Your task to perform on an android device: What is the news today? Image 0: 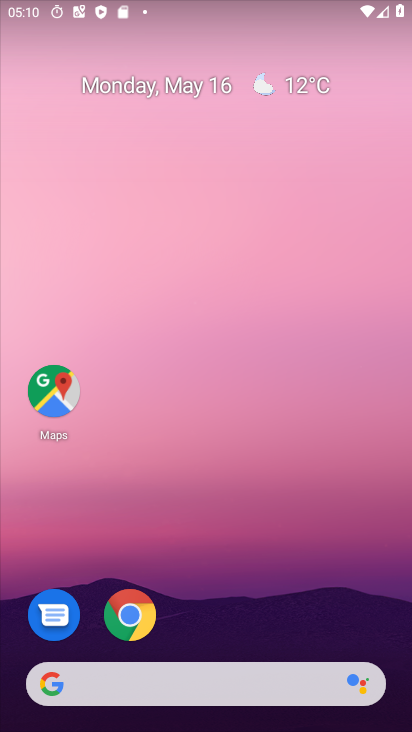
Step 0: drag from (341, 551) to (226, 36)
Your task to perform on an android device: What is the news today? Image 1: 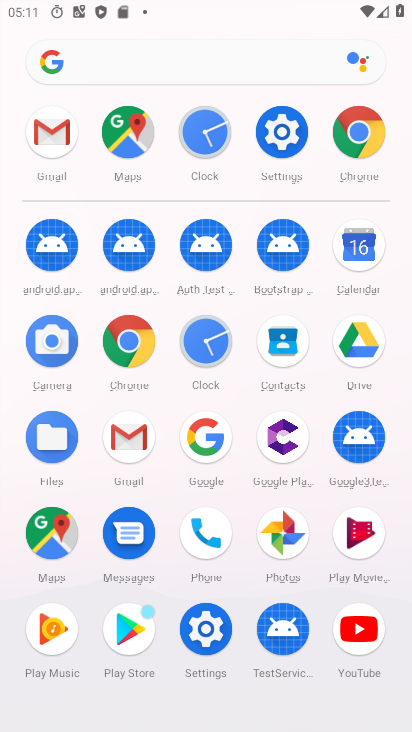
Step 1: press back button
Your task to perform on an android device: What is the news today? Image 2: 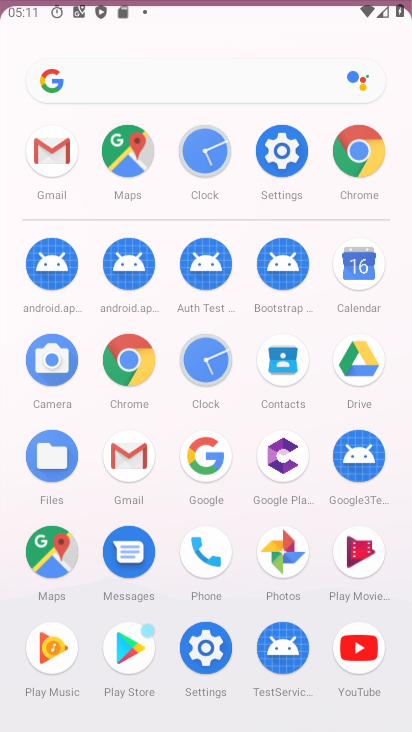
Step 2: press back button
Your task to perform on an android device: What is the news today? Image 3: 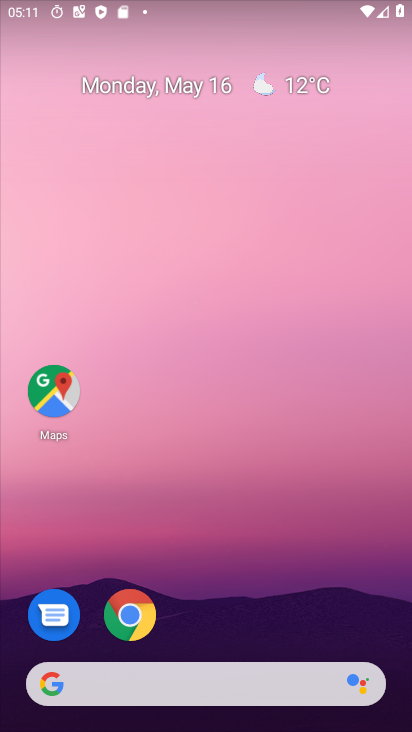
Step 3: drag from (6, 210) to (379, 406)
Your task to perform on an android device: What is the news today? Image 4: 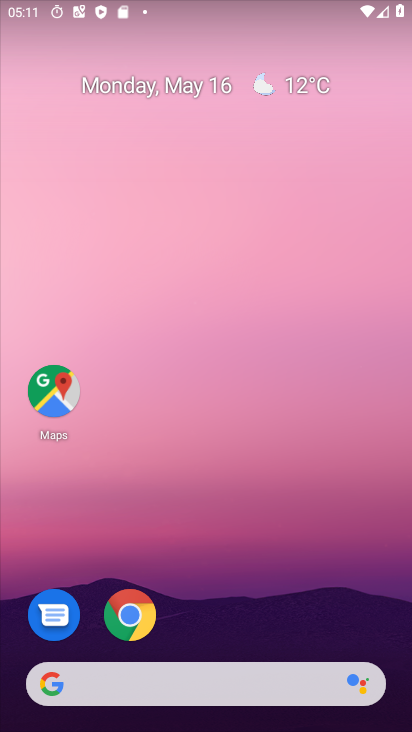
Step 4: drag from (16, 231) to (389, 439)
Your task to perform on an android device: What is the news today? Image 5: 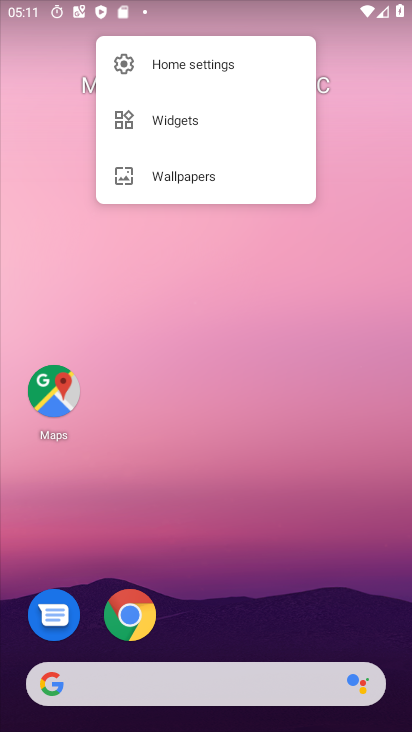
Step 5: drag from (27, 236) to (355, 398)
Your task to perform on an android device: What is the news today? Image 6: 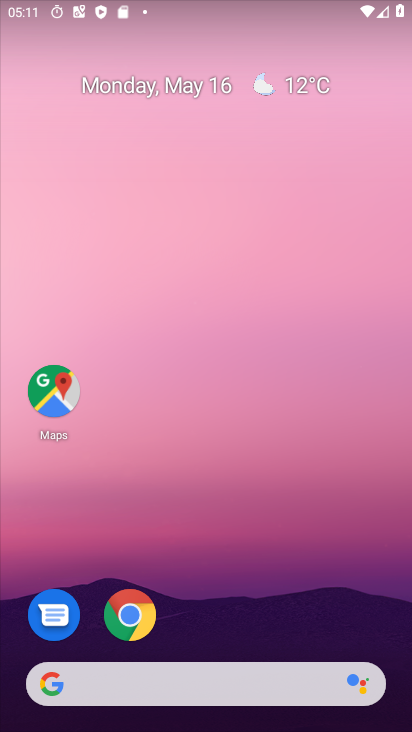
Step 6: drag from (17, 224) to (378, 555)
Your task to perform on an android device: What is the news today? Image 7: 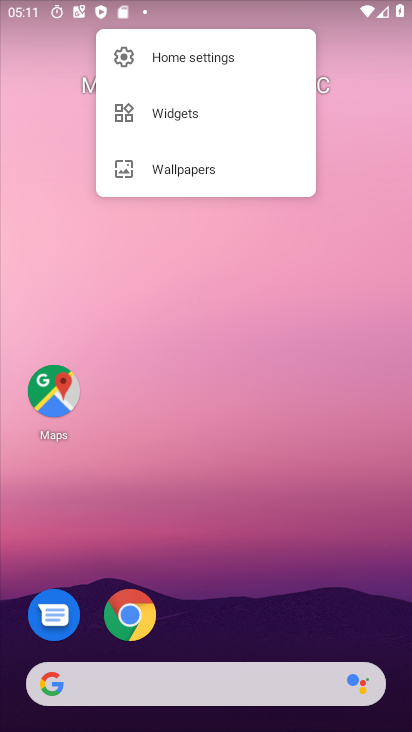
Step 7: click (403, 557)
Your task to perform on an android device: What is the news today? Image 8: 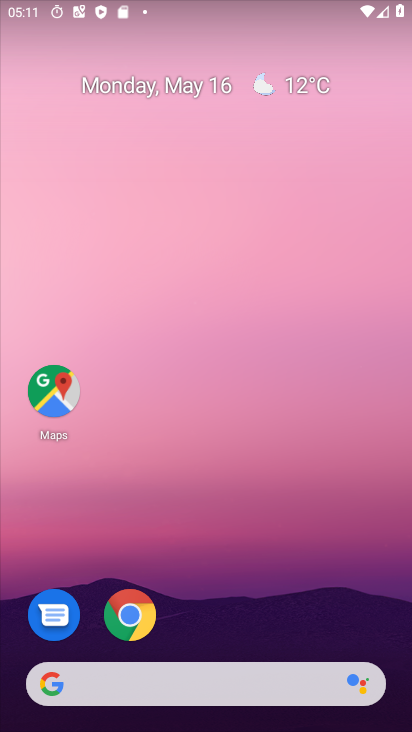
Step 8: task complete